Your task to perform on an android device: check google app version Image 0: 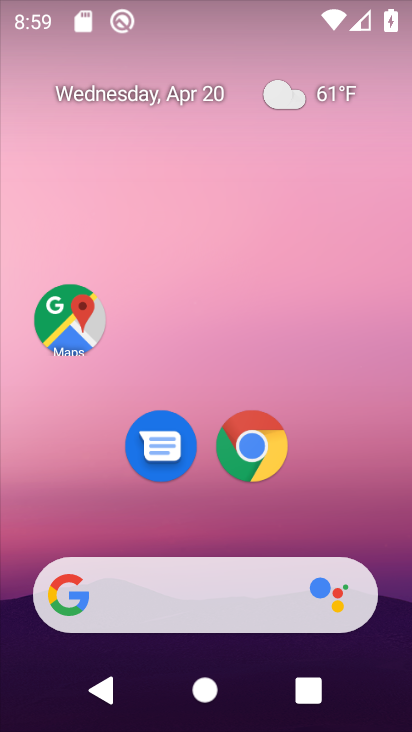
Step 0: drag from (375, 523) to (335, 124)
Your task to perform on an android device: check google app version Image 1: 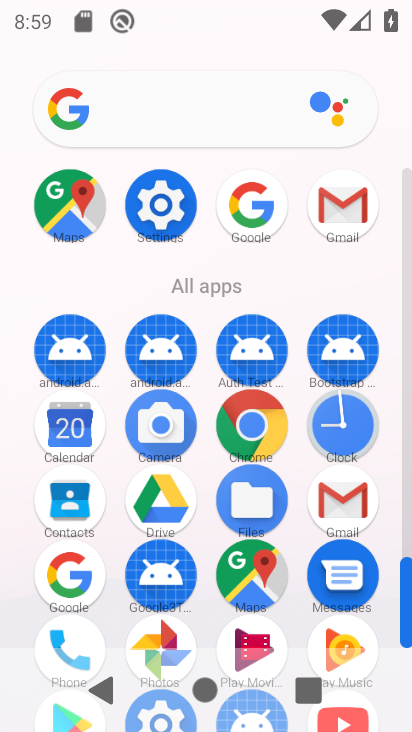
Step 1: click (59, 578)
Your task to perform on an android device: check google app version Image 2: 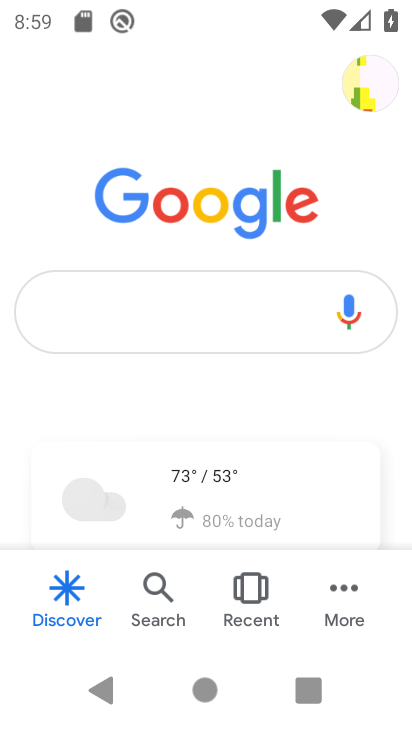
Step 2: click (350, 596)
Your task to perform on an android device: check google app version Image 3: 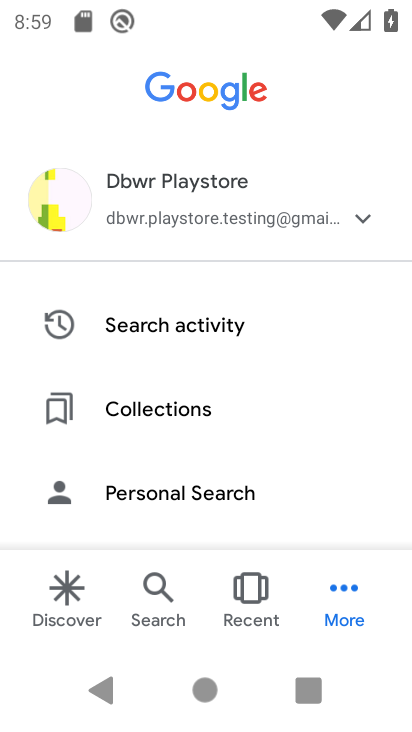
Step 3: drag from (315, 493) to (327, 231)
Your task to perform on an android device: check google app version Image 4: 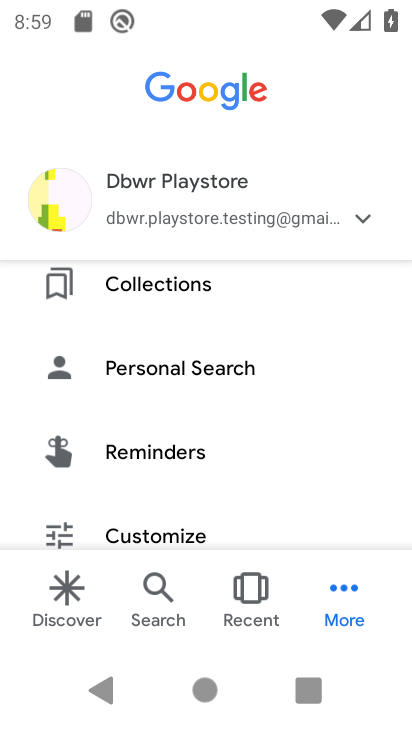
Step 4: drag from (292, 519) to (292, 224)
Your task to perform on an android device: check google app version Image 5: 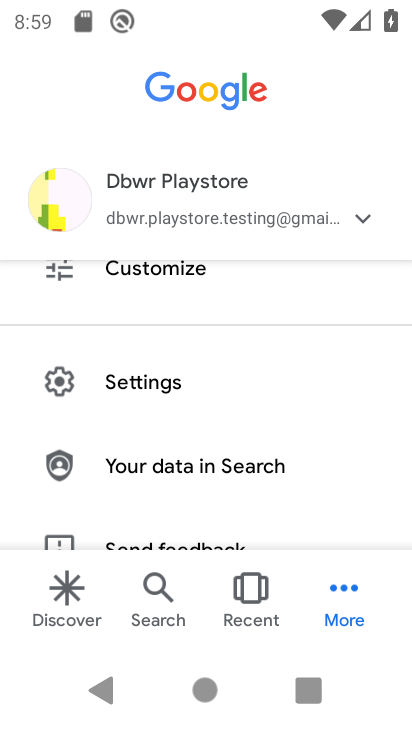
Step 5: click (112, 386)
Your task to perform on an android device: check google app version Image 6: 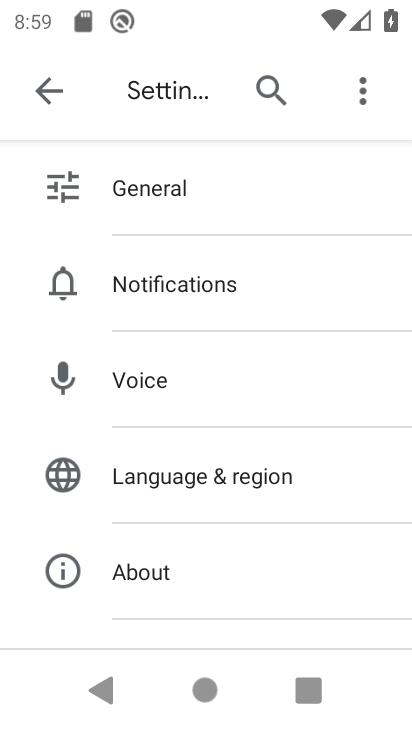
Step 6: drag from (268, 588) to (261, 253)
Your task to perform on an android device: check google app version Image 7: 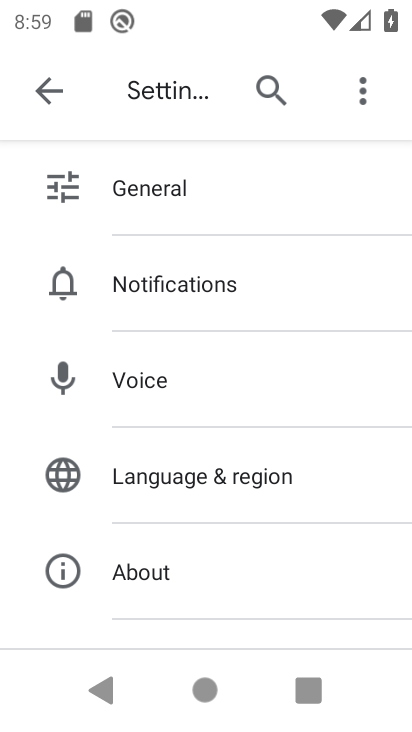
Step 7: click (149, 563)
Your task to perform on an android device: check google app version Image 8: 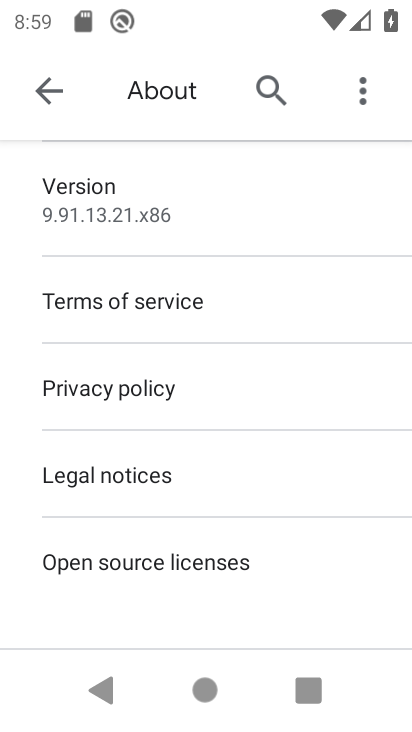
Step 8: task complete